Your task to perform on an android device: see tabs open on other devices in the chrome app Image 0: 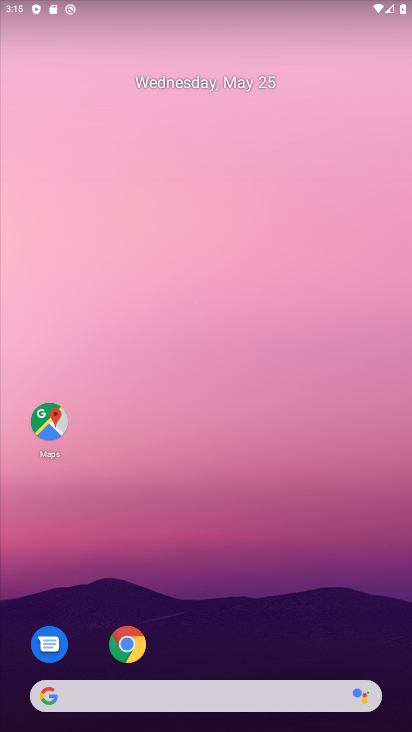
Step 0: click (127, 640)
Your task to perform on an android device: see tabs open on other devices in the chrome app Image 1: 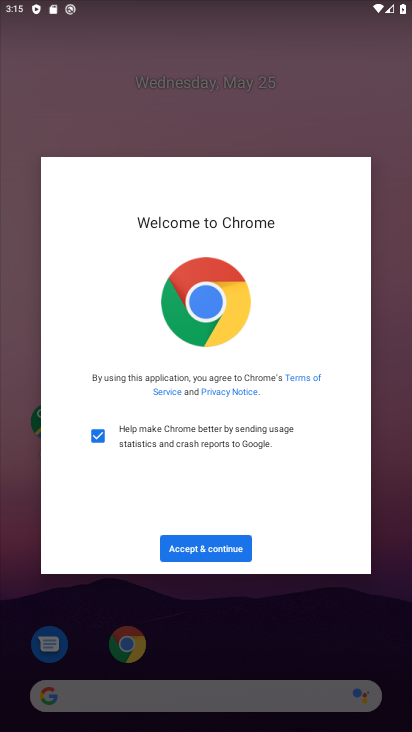
Step 1: click (194, 541)
Your task to perform on an android device: see tabs open on other devices in the chrome app Image 2: 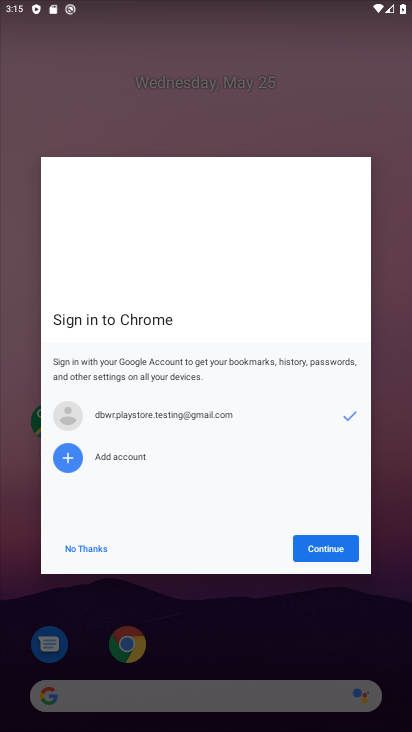
Step 2: click (94, 547)
Your task to perform on an android device: see tabs open on other devices in the chrome app Image 3: 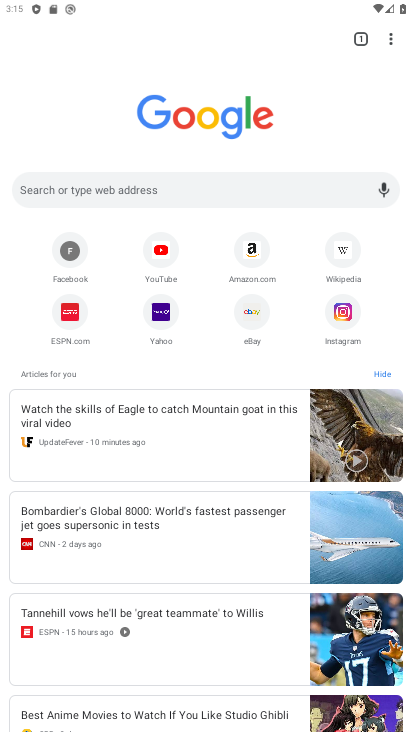
Step 3: click (387, 41)
Your task to perform on an android device: see tabs open on other devices in the chrome app Image 4: 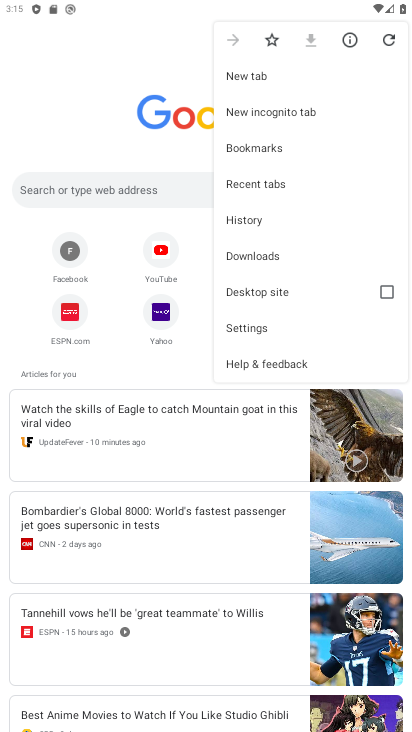
Step 4: click (243, 184)
Your task to perform on an android device: see tabs open on other devices in the chrome app Image 5: 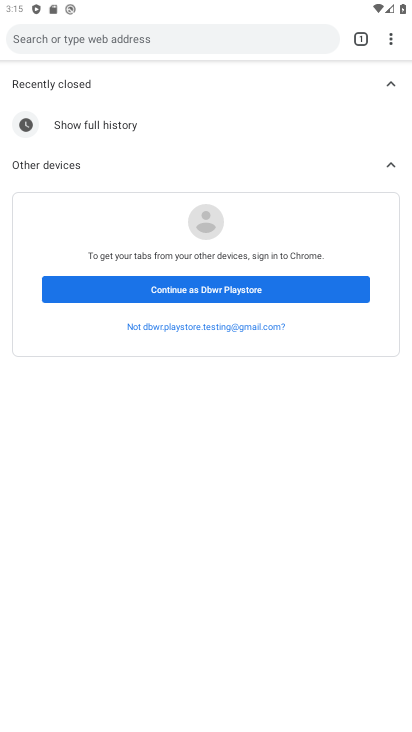
Step 5: click (196, 289)
Your task to perform on an android device: see tabs open on other devices in the chrome app Image 6: 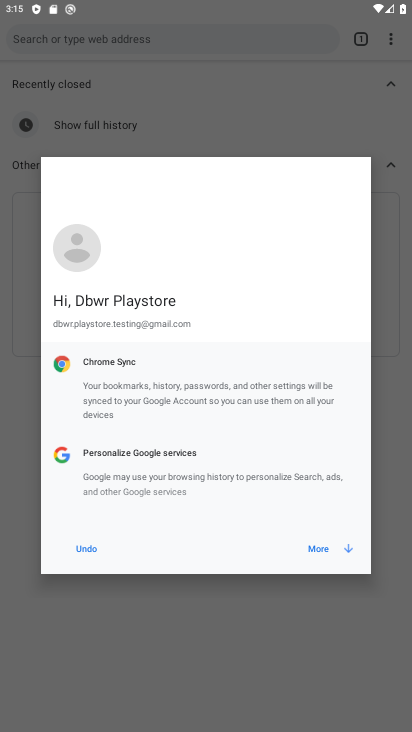
Step 6: click (348, 558)
Your task to perform on an android device: see tabs open on other devices in the chrome app Image 7: 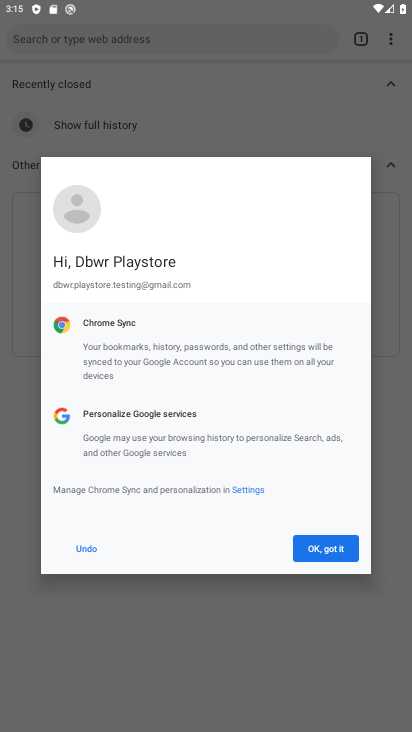
Step 7: click (339, 558)
Your task to perform on an android device: see tabs open on other devices in the chrome app Image 8: 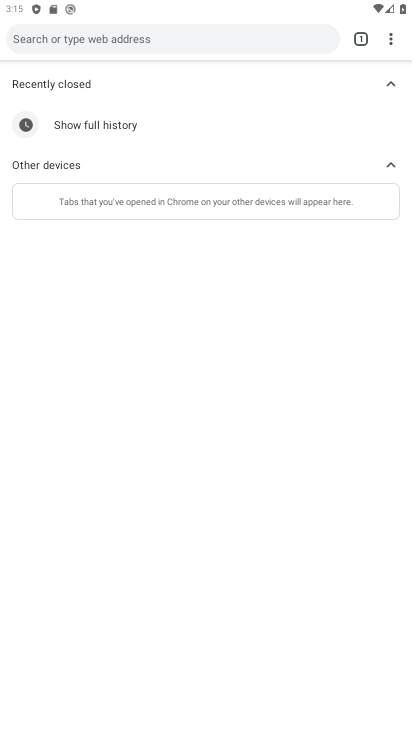
Step 8: task complete